Your task to perform on an android device: Show me popular games on the Play Store Image 0: 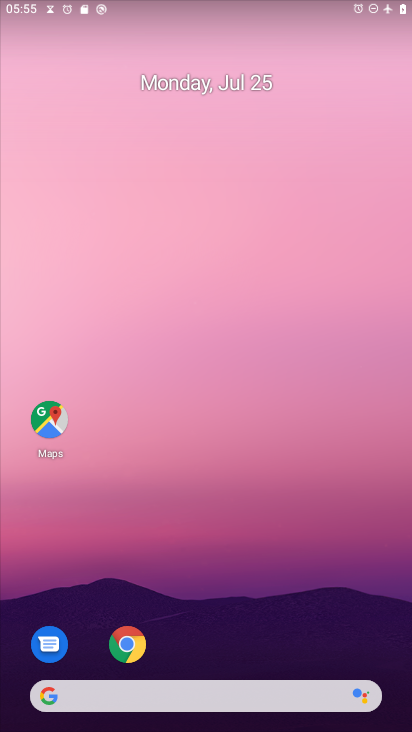
Step 0: press home button
Your task to perform on an android device: Show me popular games on the Play Store Image 1: 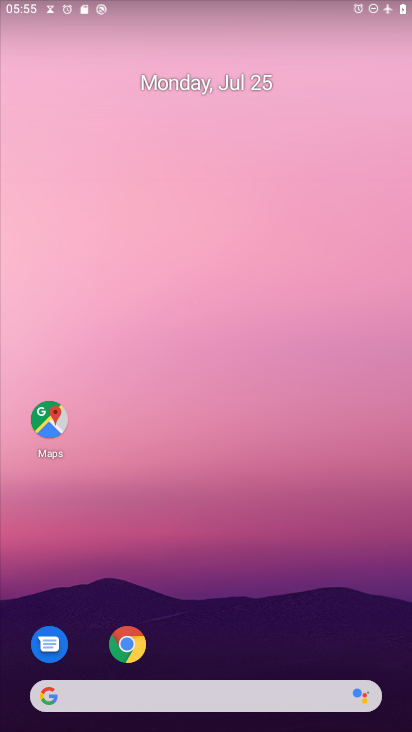
Step 1: drag from (231, 650) to (238, 208)
Your task to perform on an android device: Show me popular games on the Play Store Image 2: 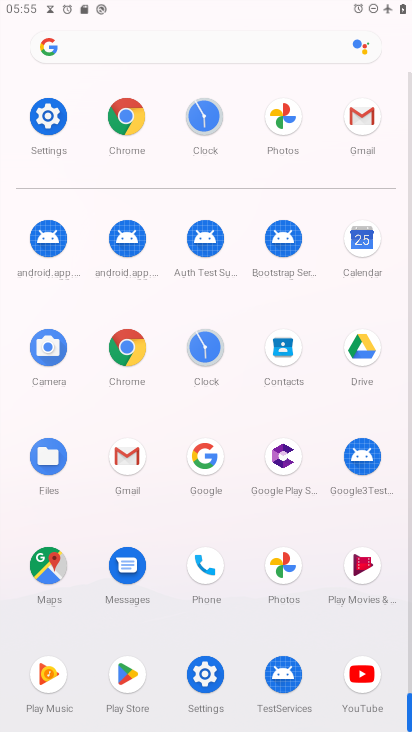
Step 2: click (125, 676)
Your task to perform on an android device: Show me popular games on the Play Store Image 3: 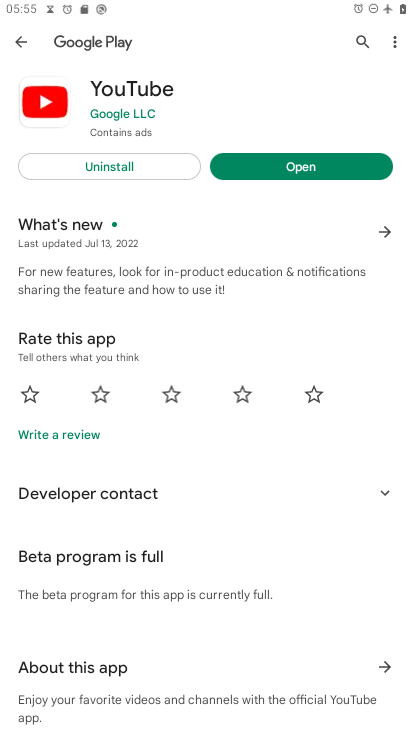
Step 3: click (15, 43)
Your task to perform on an android device: Show me popular games on the Play Store Image 4: 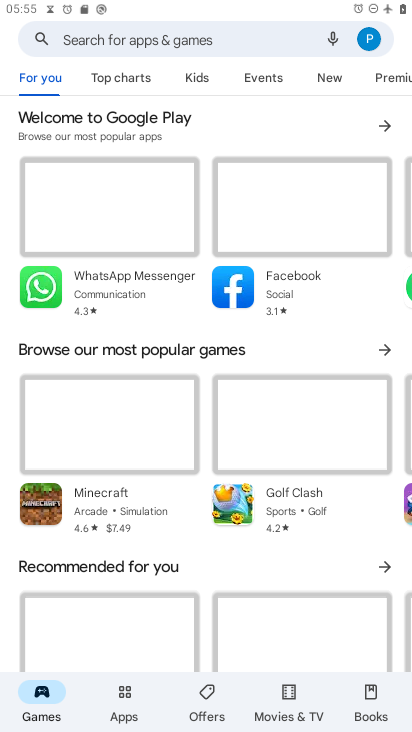
Step 4: drag from (365, 84) to (173, 100)
Your task to perform on an android device: Show me popular games on the Play Store Image 5: 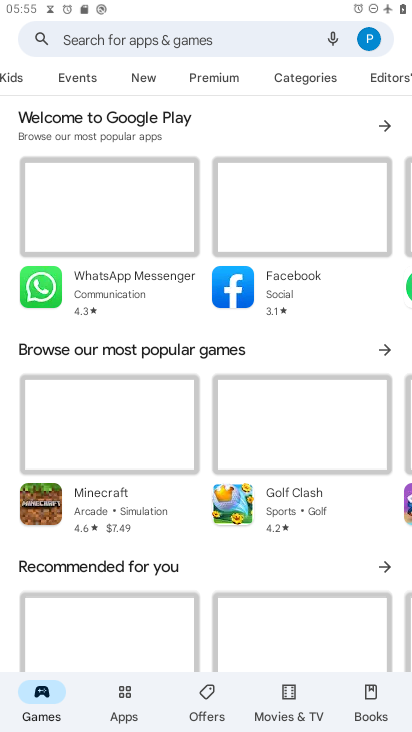
Step 5: click (303, 79)
Your task to perform on an android device: Show me popular games on the Play Store Image 6: 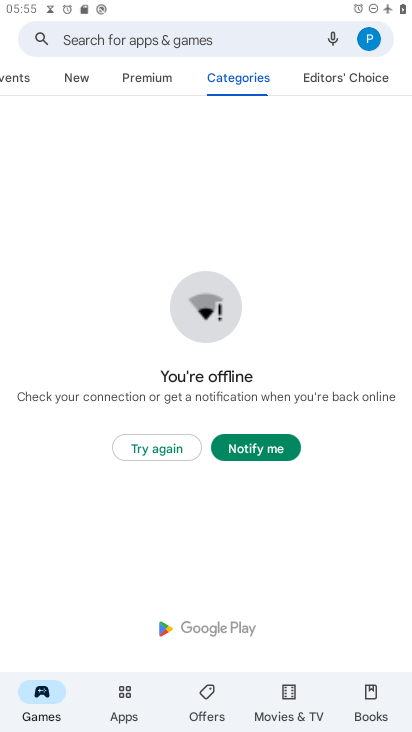
Step 6: click (158, 448)
Your task to perform on an android device: Show me popular games on the Play Store Image 7: 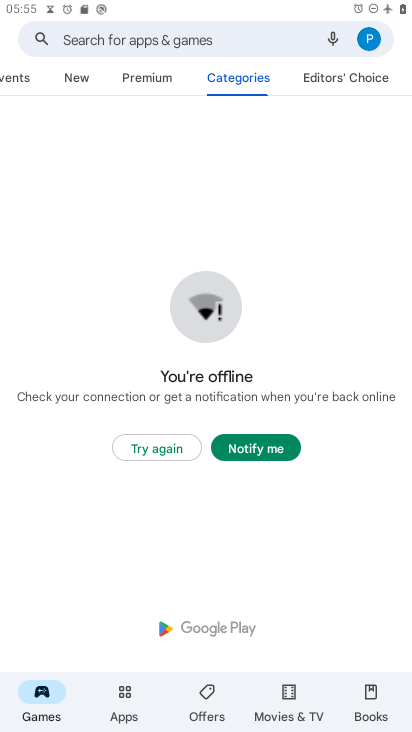
Step 7: click (157, 448)
Your task to perform on an android device: Show me popular games on the Play Store Image 8: 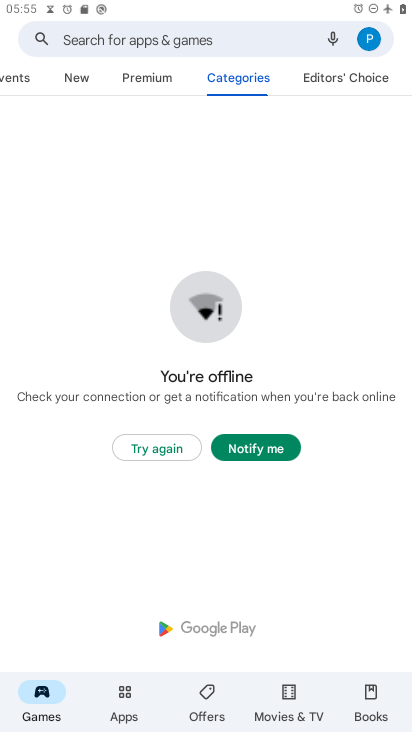
Step 8: click (254, 435)
Your task to perform on an android device: Show me popular games on the Play Store Image 9: 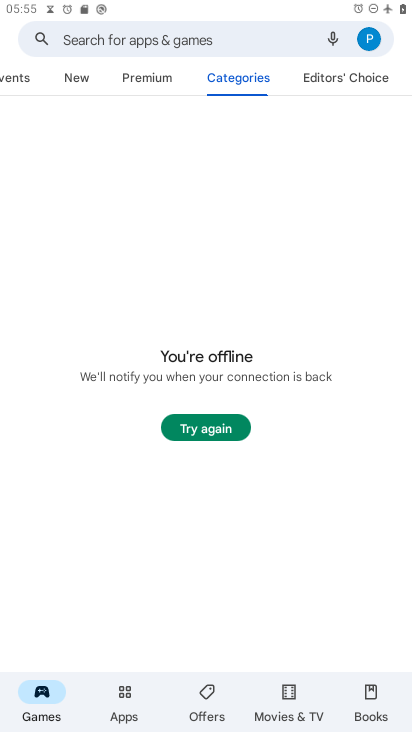
Step 9: click (208, 421)
Your task to perform on an android device: Show me popular games on the Play Store Image 10: 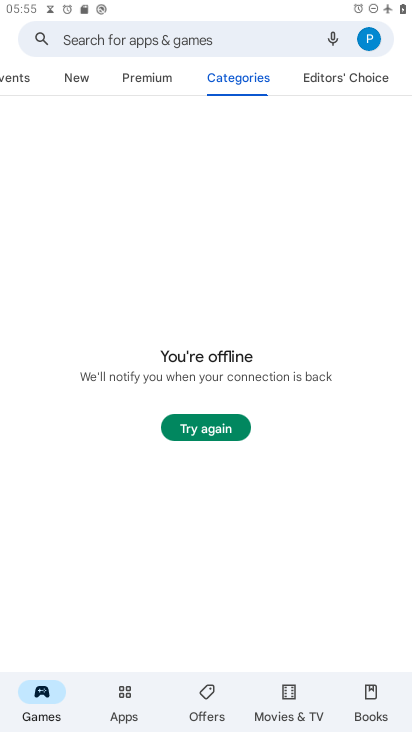
Step 10: click (201, 431)
Your task to perform on an android device: Show me popular games on the Play Store Image 11: 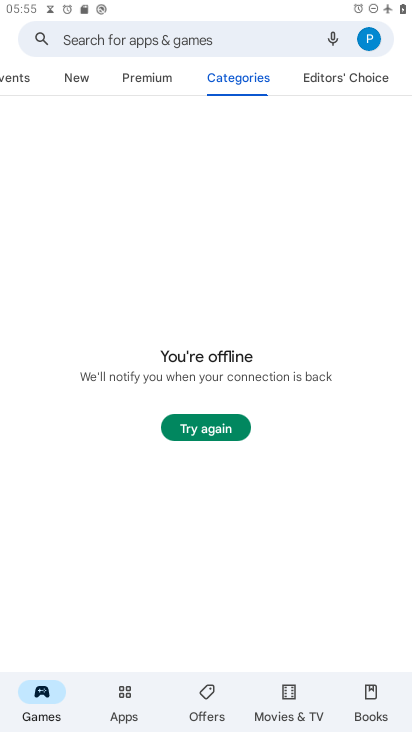
Step 11: task complete